Your task to perform on an android device: open app "Instagram" (install if not already installed) and enter user name: "nobler@yahoo.com" and password: "foraging" Image 0: 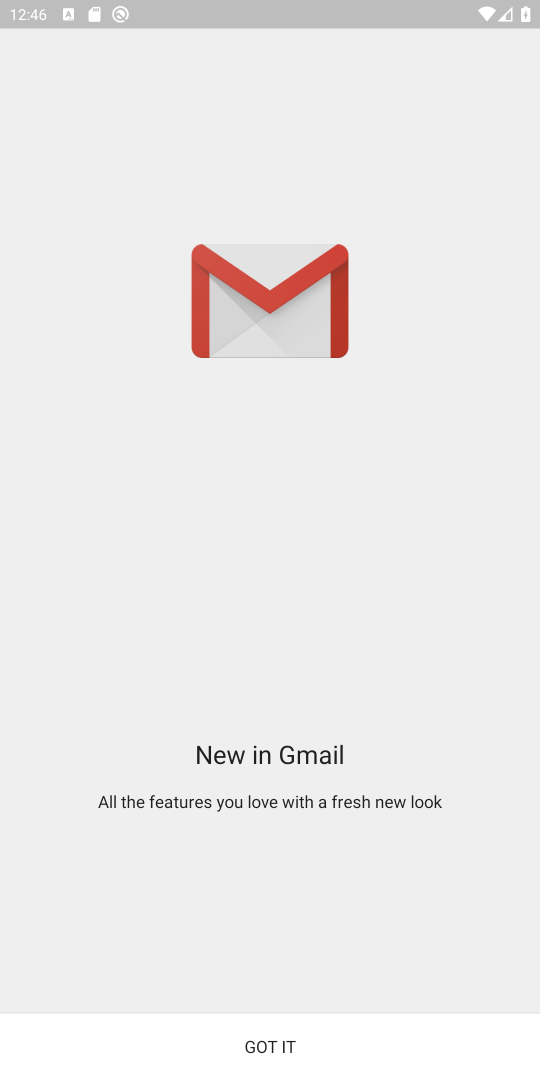
Step 0: press home button
Your task to perform on an android device: open app "Instagram" (install if not already installed) and enter user name: "nobler@yahoo.com" and password: "foraging" Image 1: 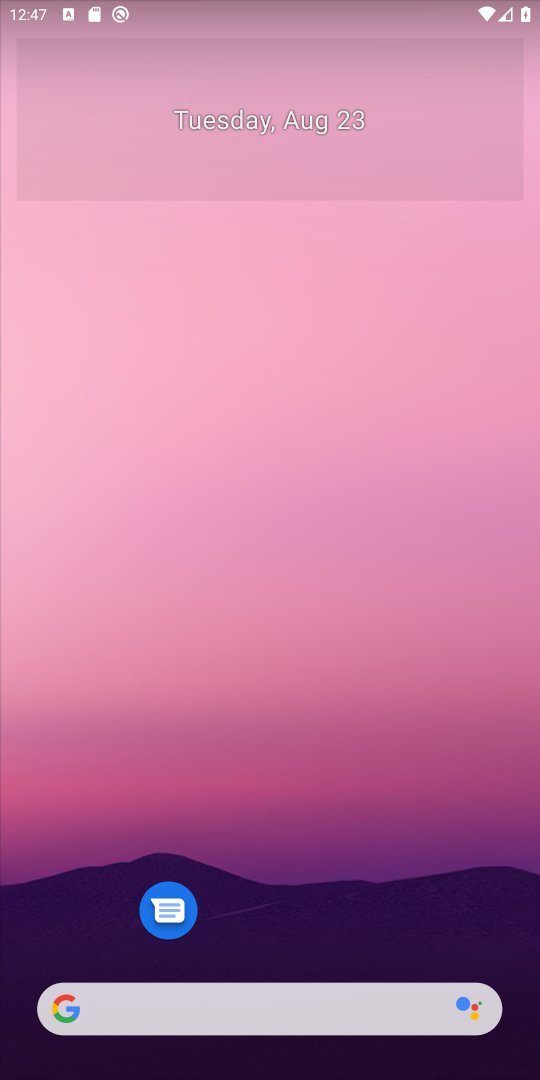
Step 1: drag from (267, 882) to (215, 16)
Your task to perform on an android device: open app "Instagram" (install if not already installed) and enter user name: "nobler@yahoo.com" and password: "foraging" Image 2: 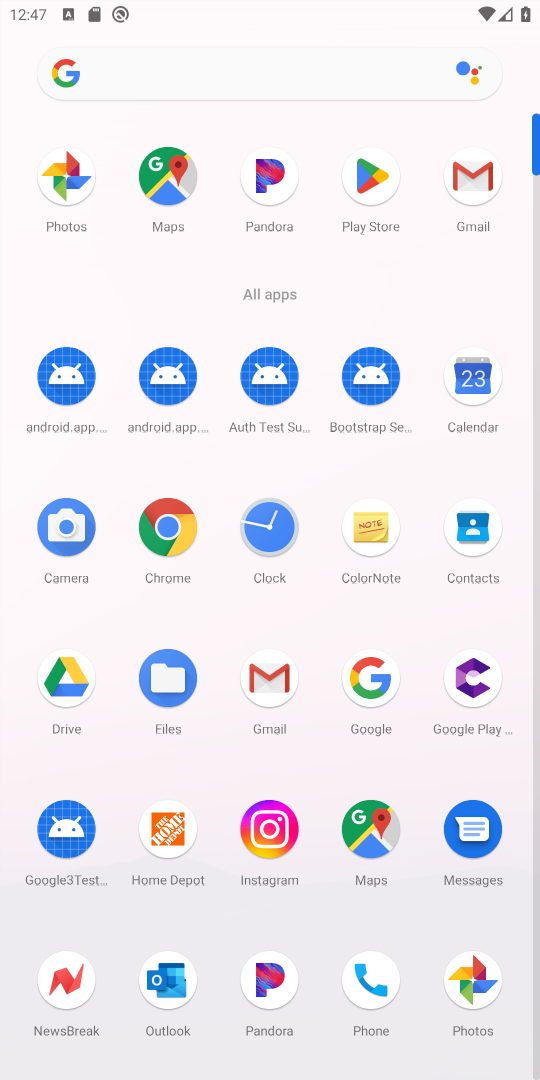
Step 2: click (376, 162)
Your task to perform on an android device: open app "Instagram" (install if not already installed) and enter user name: "nobler@yahoo.com" and password: "foraging" Image 3: 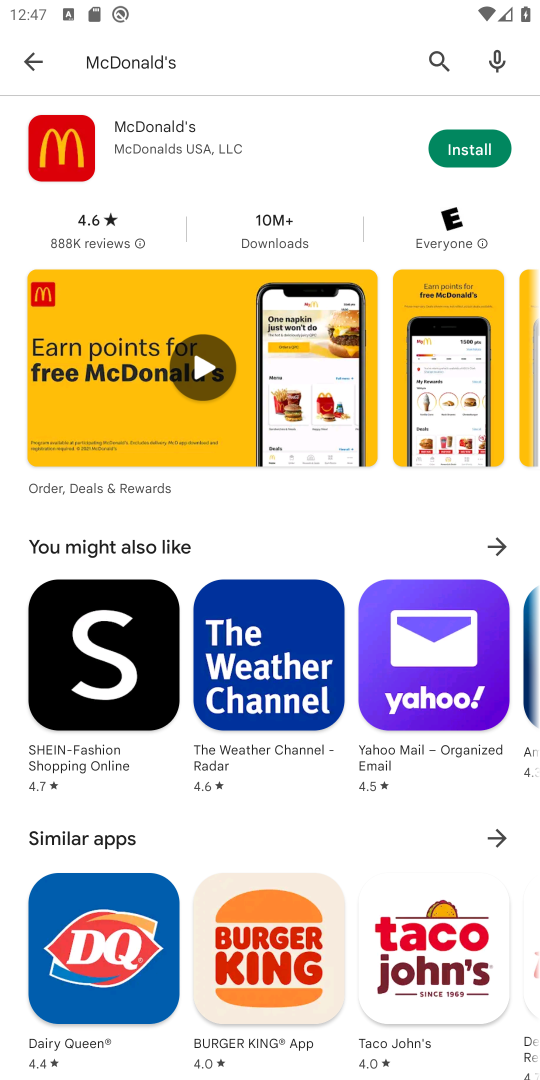
Step 3: press back button
Your task to perform on an android device: open app "Instagram" (install if not already installed) and enter user name: "nobler@yahoo.com" and password: "foraging" Image 4: 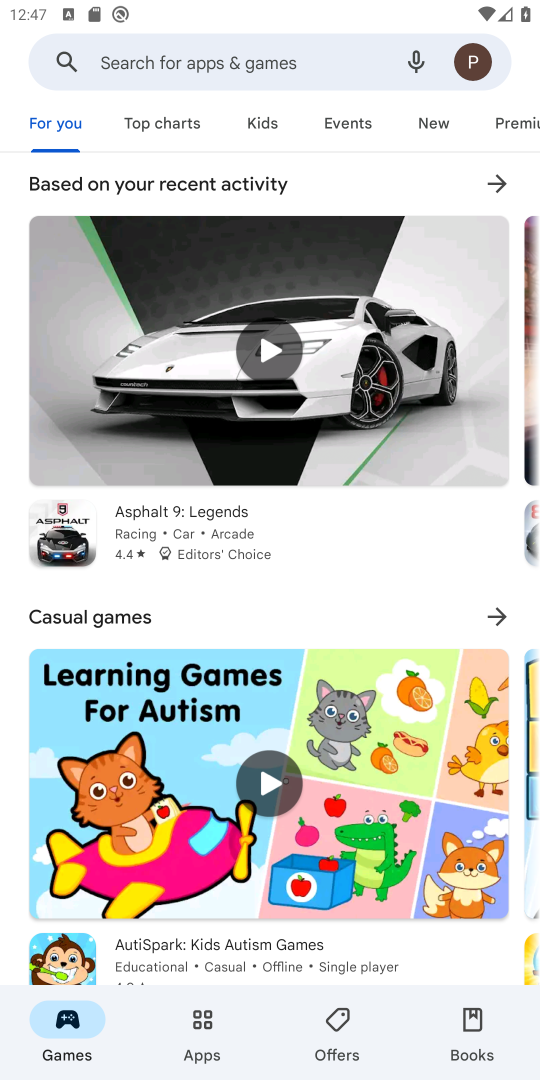
Step 4: click (137, 80)
Your task to perform on an android device: open app "Instagram" (install if not already installed) and enter user name: "nobler@yahoo.com" and password: "foraging" Image 5: 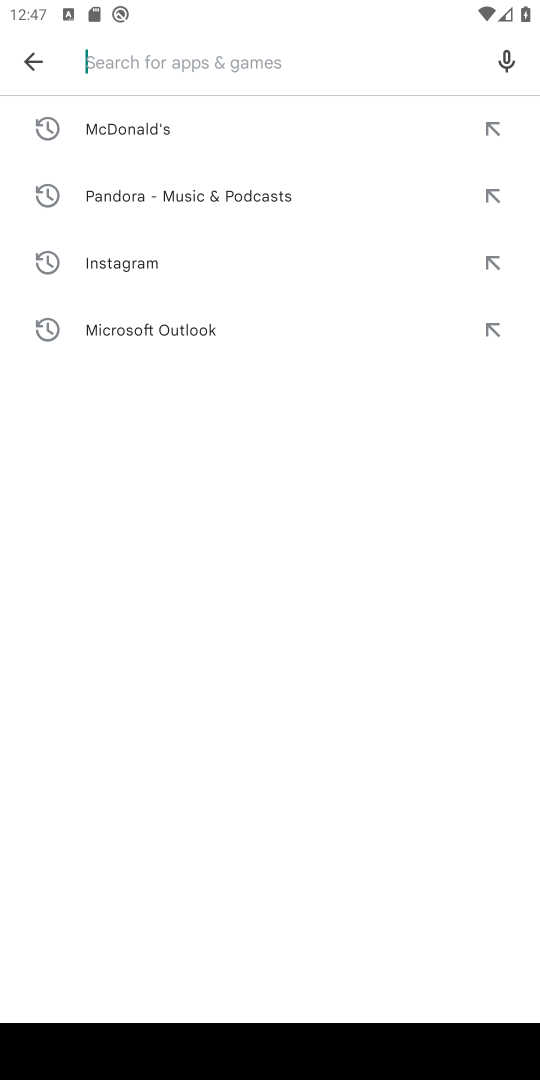
Step 5: press enter
Your task to perform on an android device: open app "Instagram" (install if not already installed) and enter user name: "nobler@yahoo.com" and password: "foraging" Image 6: 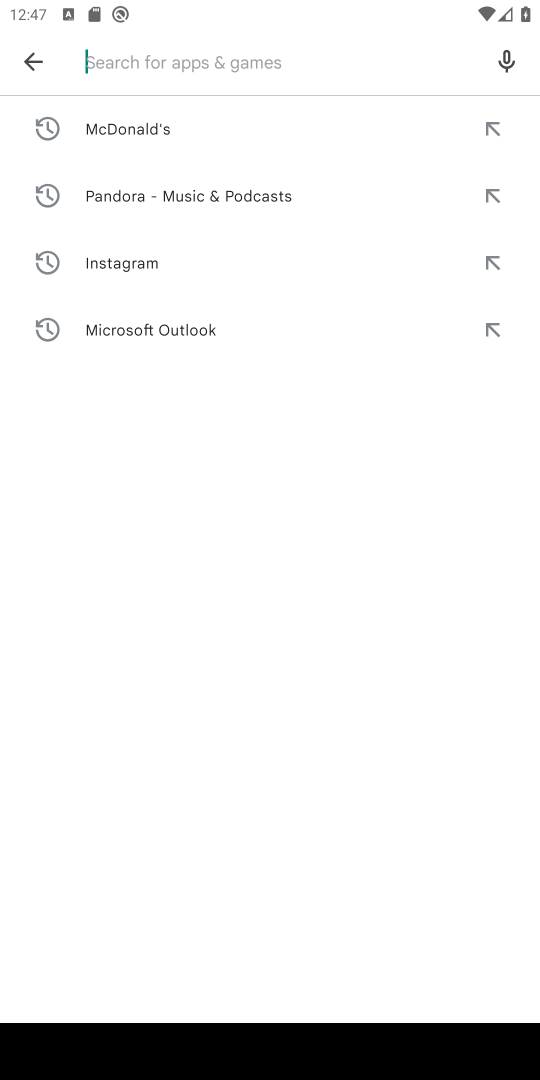
Step 6: type "Instagram"
Your task to perform on an android device: open app "Instagram" (install if not already installed) and enter user name: "nobler@yahoo.com" and password: "foraging" Image 7: 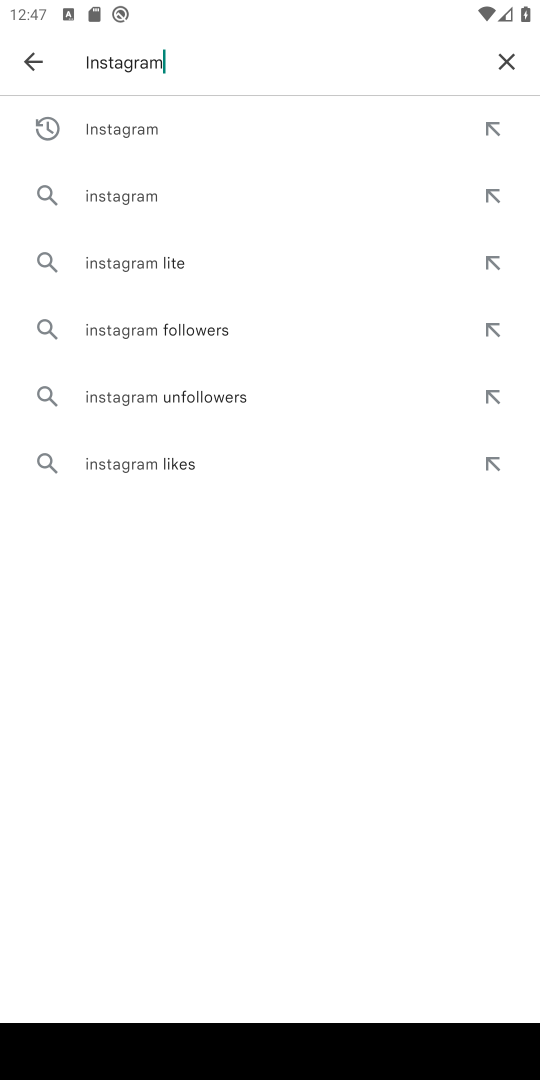
Step 7: task complete